Your task to perform on an android device: delete the emails in spam in the gmail app Image 0: 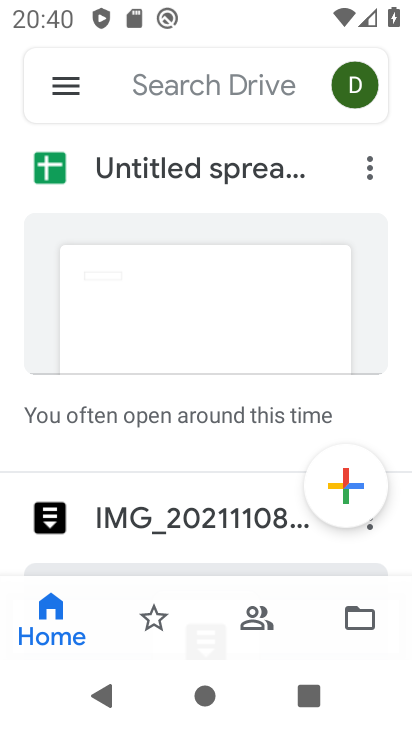
Step 0: press home button
Your task to perform on an android device: delete the emails in spam in the gmail app Image 1: 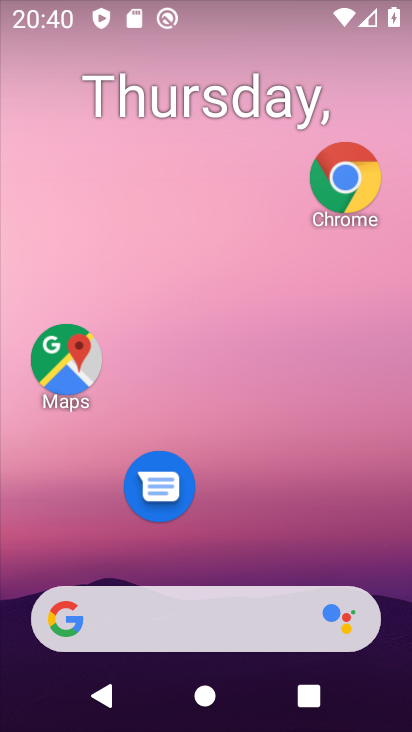
Step 1: drag from (194, 568) to (214, 20)
Your task to perform on an android device: delete the emails in spam in the gmail app Image 2: 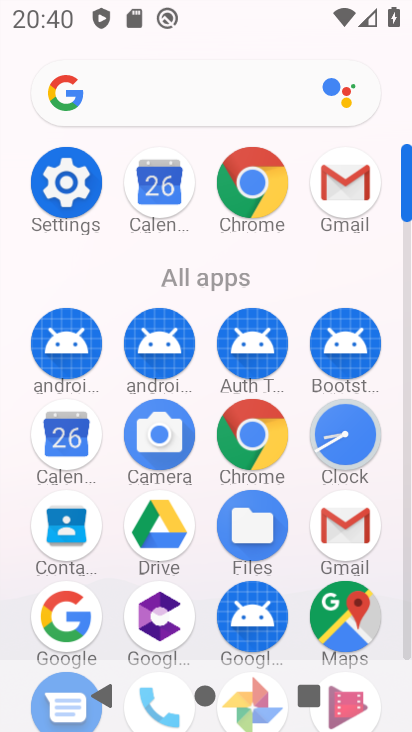
Step 2: click (349, 523)
Your task to perform on an android device: delete the emails in spam in the gmail app Image 3: 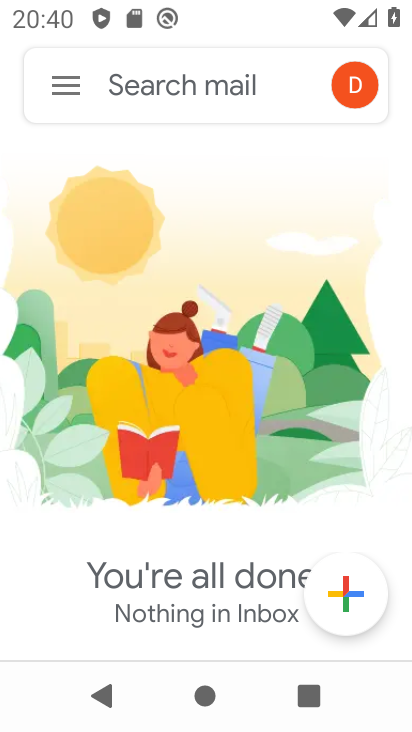
Step 3: click (60, 86)
Your task to perform on an android device: delete the emails in spam in the gmail app Image 4: 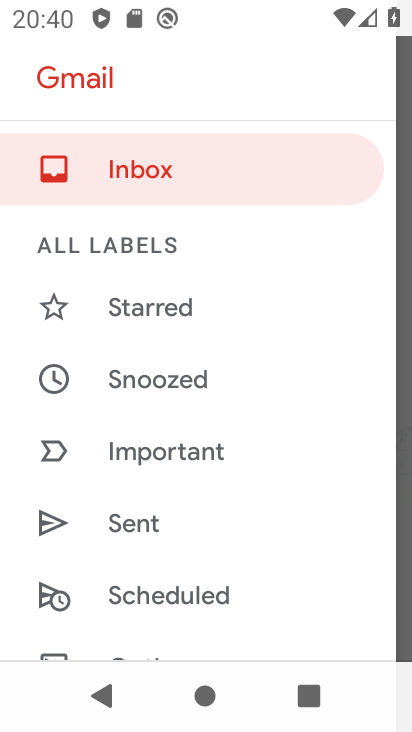
Step 4: drag from (159, 473) to (64, 93)
Your task to perform on an android device: delete the emails in spam in the gmail app Image 5: 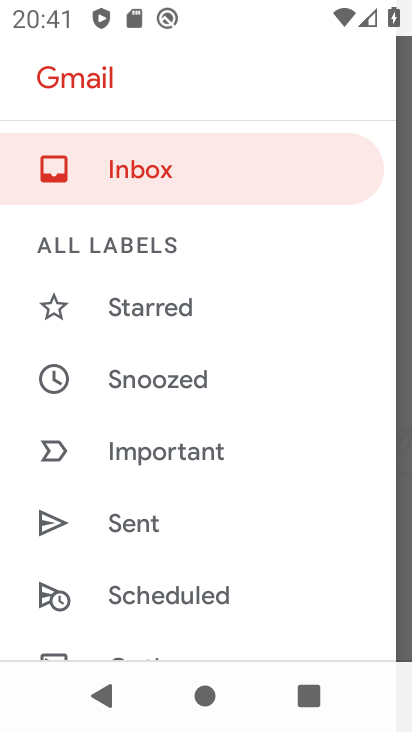
Step 5: drag from (176, 538) to (148, 148)
Your task to perform on an android device: delete the emails in spam in the gmail app Image 6: 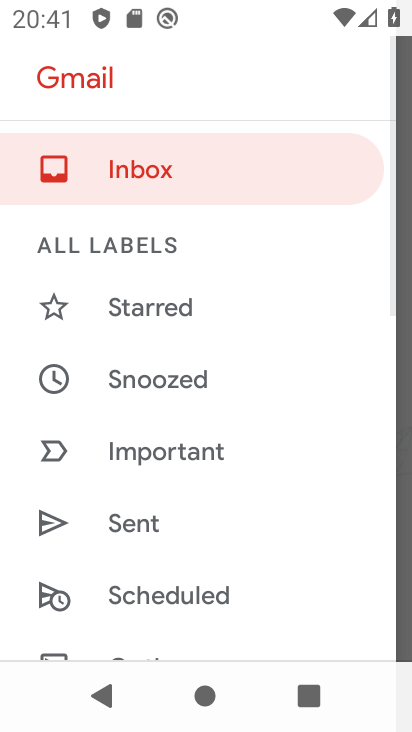
Step 6: drag from (175, 570) to (223, 111)
Your task to perform on an android device: delete the emails in spam in the gmail app Image 7: 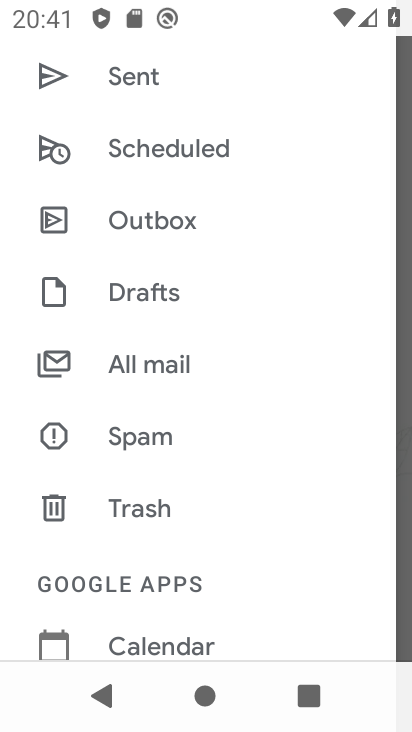
Step 7: drag from (174, 544) to (188, 125)
Your task to perform on an android device: delete the emails in spam in the gmail app Image 8: 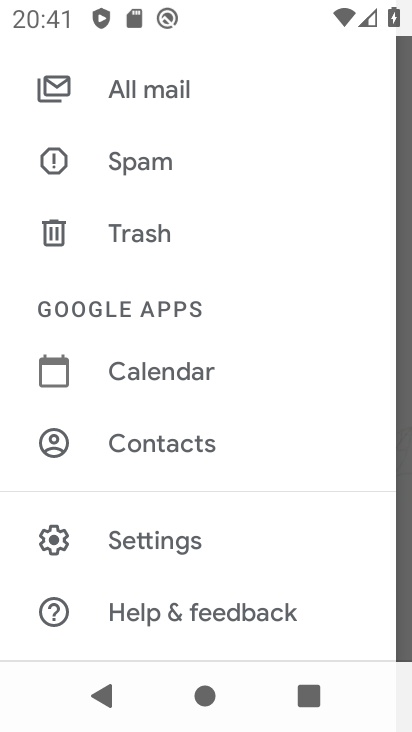
Step 8: drag from (178, 140) to (179, 308)
Your task to perform on an android device: delete the emails in spam in the gmail app Image 9: 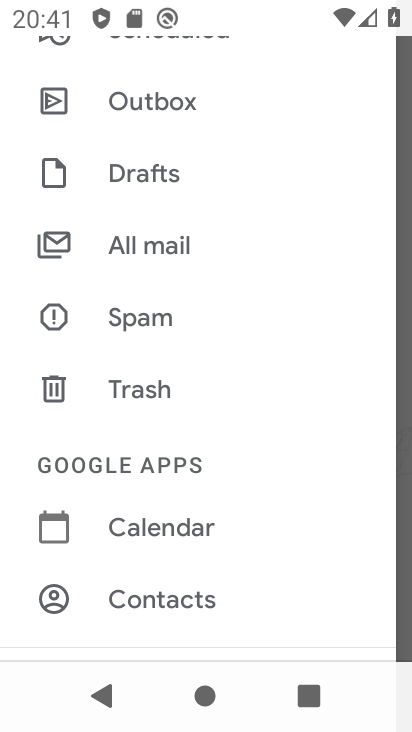
Step 9: click (158, 248)
Your task to perform on an android device: delete the emails in spam in the gmail app Image 10: 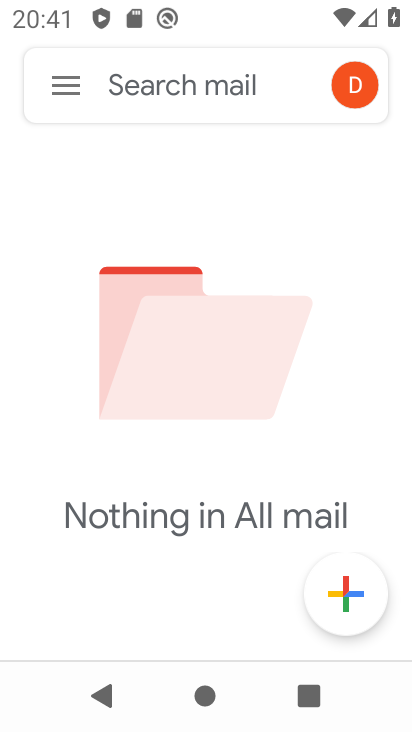
Step 10: task complete